Your task to perform on an android device: turn off airplane mode Image 0: 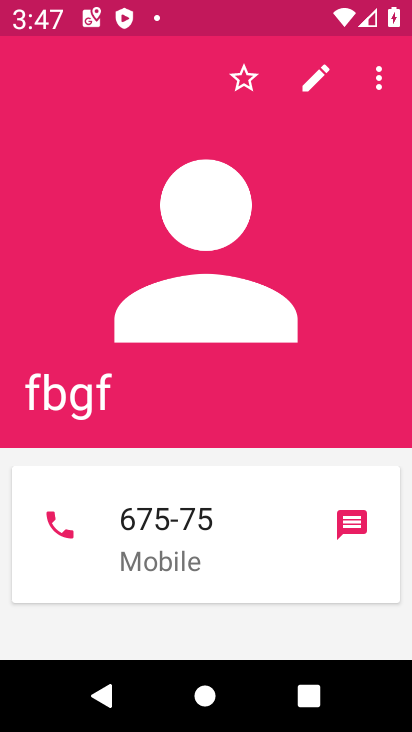
Step 0: press back button
Your task to perform on an android device: turn off airplane mode Image 1: 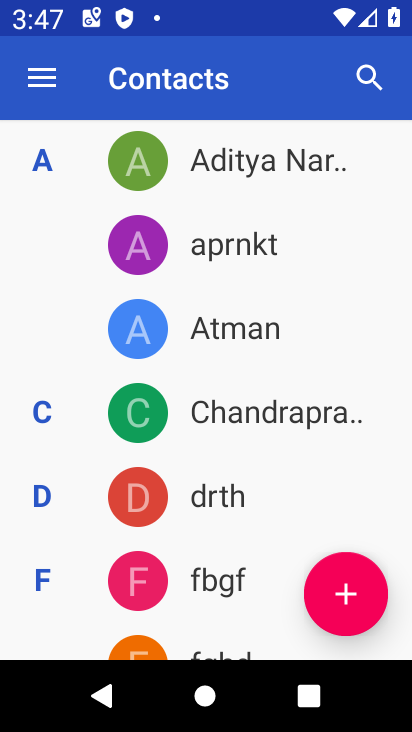
Step 1: task complete